Your task to perform on an android device: Search for flights from Mexico city to Zurich Image 0: 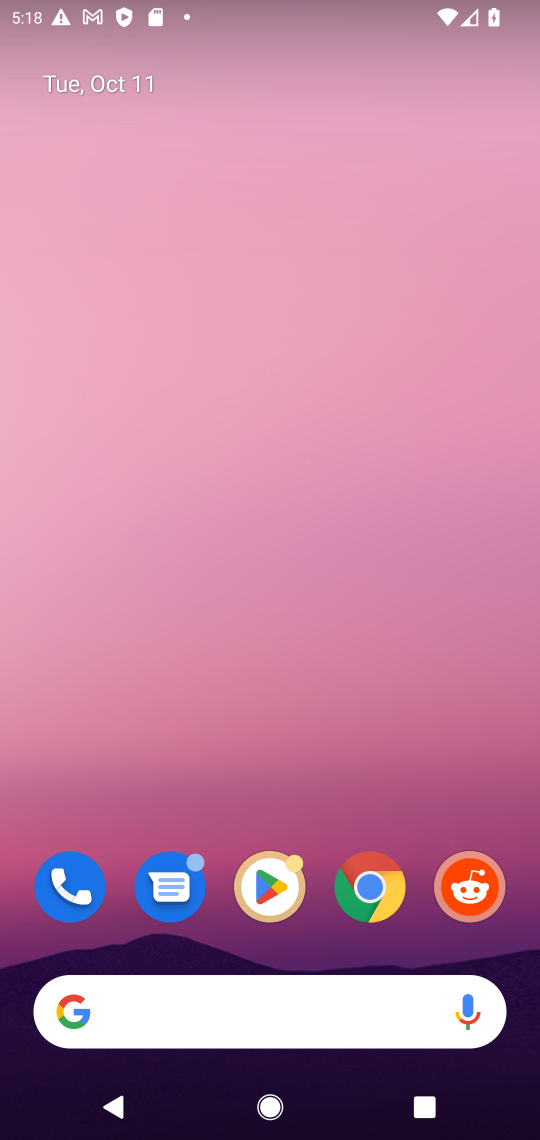
Step 0: click (240, 987)
Your task to perform on an android device: Search for flights from Mexico city to Zurich Image 1: 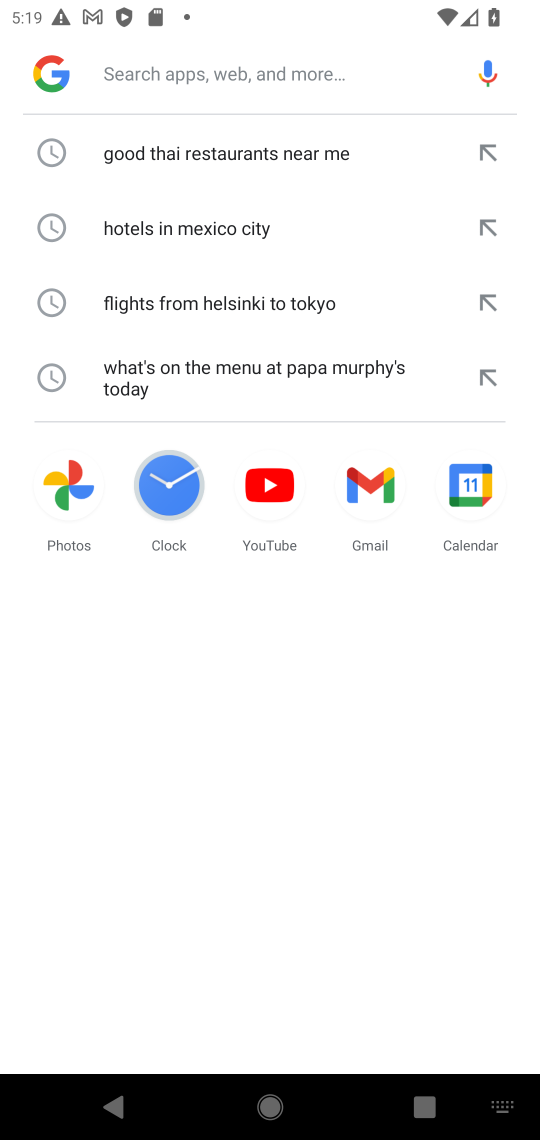
Step 1: type "good Thai restaurants"
Your task to perform on an android device: Search for flights from Mexico city to Zurich Image 2: 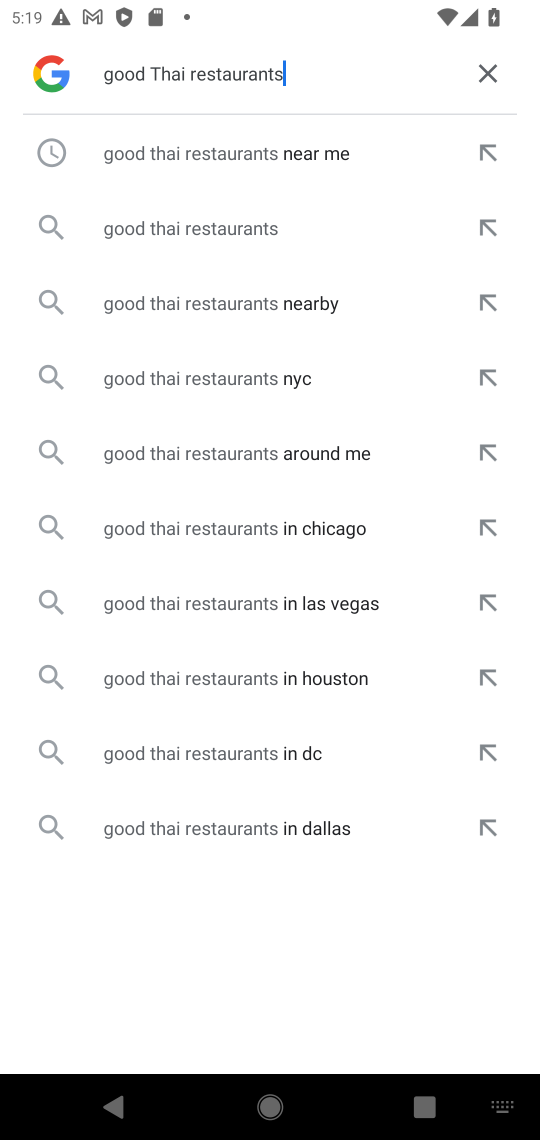
Step 2: click (341, 152)
Your task to perform on an android device: Search for flights from Mexico city to Zurich Image 3: 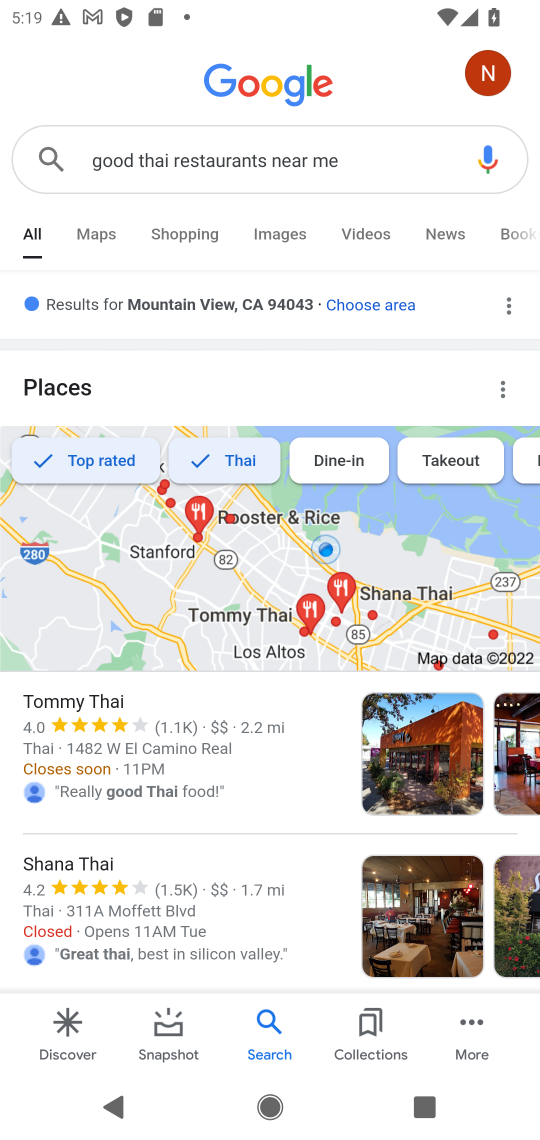
Step 3: task complete